Your task to perform on an android device: stop showing notifications on the lock screen Image 0: 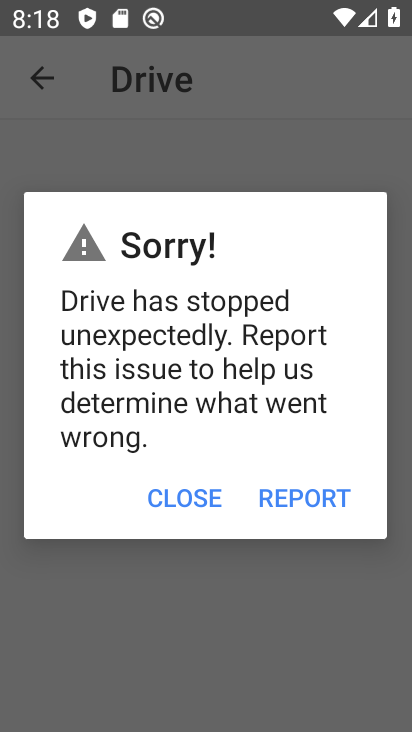
Step 0: press home button
Your task to perform on an android device: stop showing notifications on the lock screen Image 1: 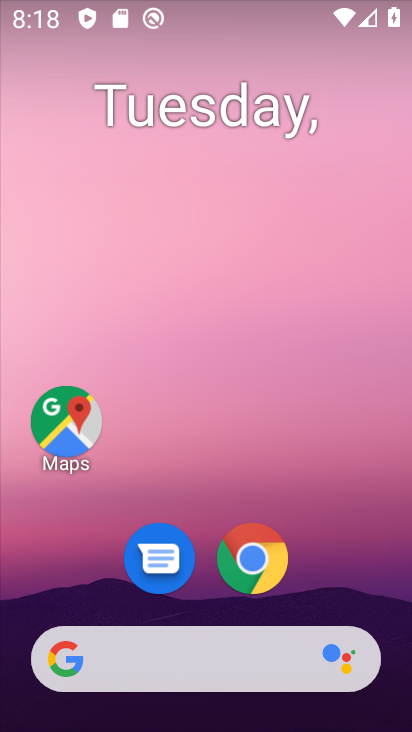
Step 1: drag from (196, 606) to (220, 170)
Your task to perform on an android device: stop showing notifications on the lock screen Image 2: 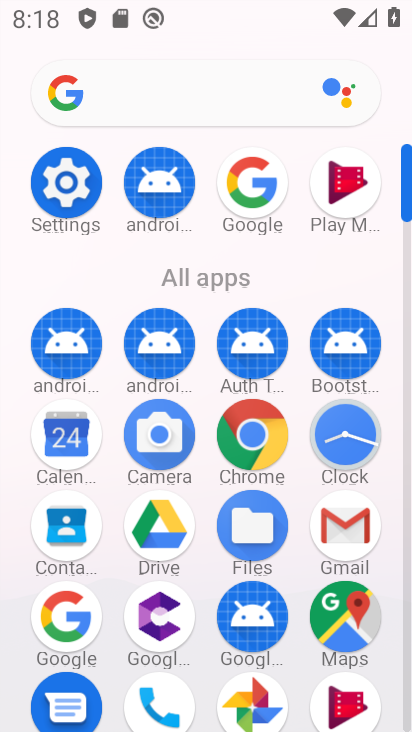
Step 2: click (70, 204)
Your task to perform on an android device: stop showing notifications on the lock screen Image 3: 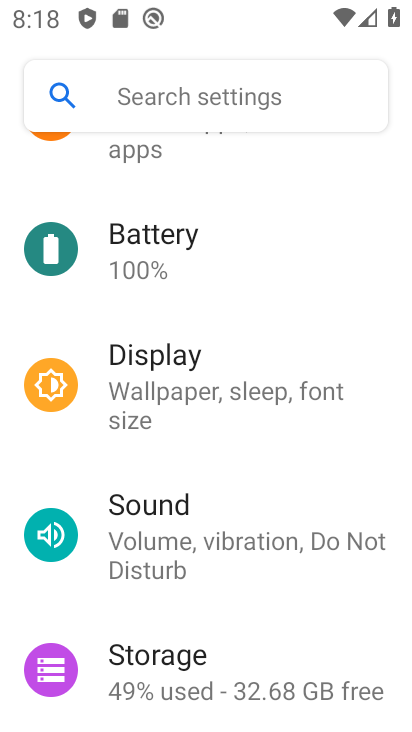
Step 3: drag from (220, 218) to (249, 504)
Your task to perform on an android device: stop showing notifications on the lock screen Image 4: 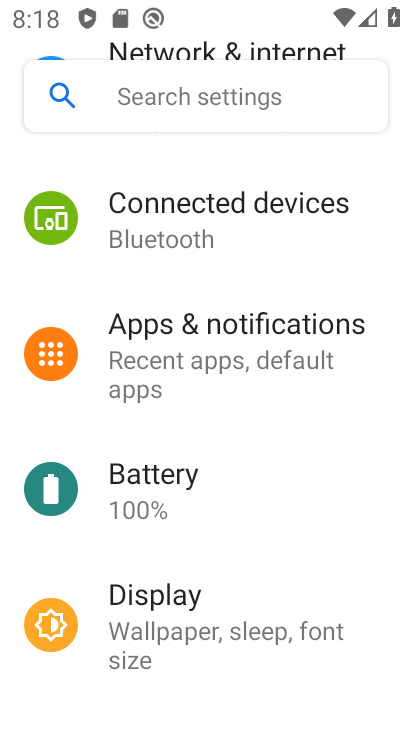
Step 4: click (243, 319)
Your task to perform on an android device: stop showing notifications on the lock screen Image 5: 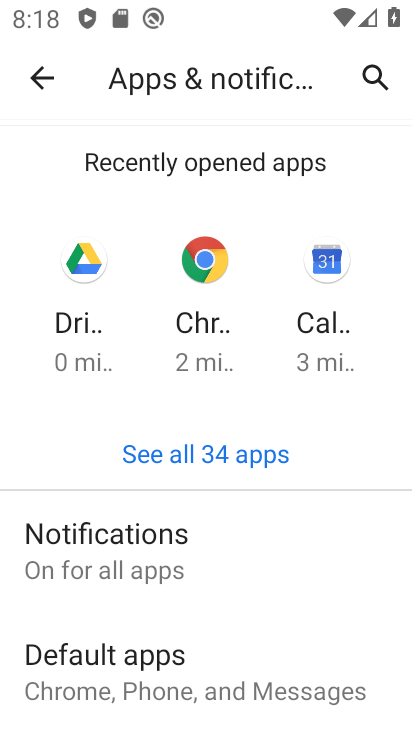
Step 5: click (204, 535)
Your task to perform on an android device: stop showing notifications on the lock screen Image 6: 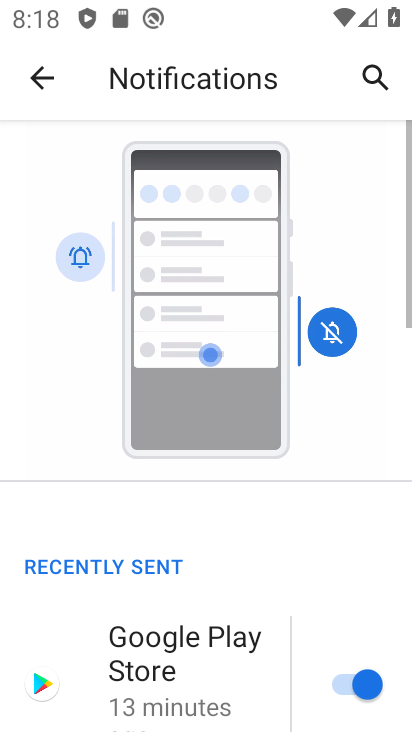
Step 6: drag from (214, 623) to (245, 233)
Your task to perform on an android device: stop showing notifications on the lock screen Image 7: 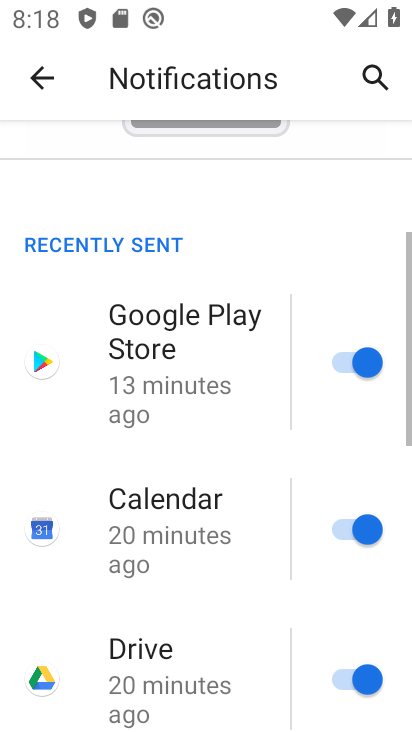
Step 7: drag from (235, 643) to (242, 264)
Your task to perform on an android device: stop showing notifications on the lock screen Image 8: 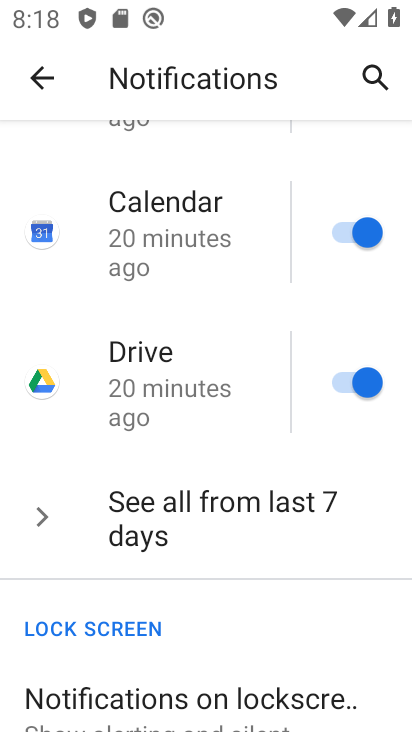
Step 8: drag from (231, 620) to (237, 378)
Your task to perform on an android device: stop showing notifications on the lock screen Image 9: 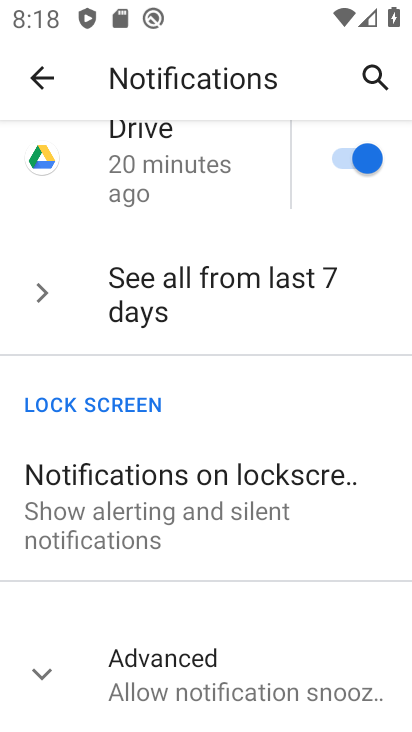
Step 9: click (237, 528)
Your task to perform on an android device: stop showing notifications on the lock screen Image 10: 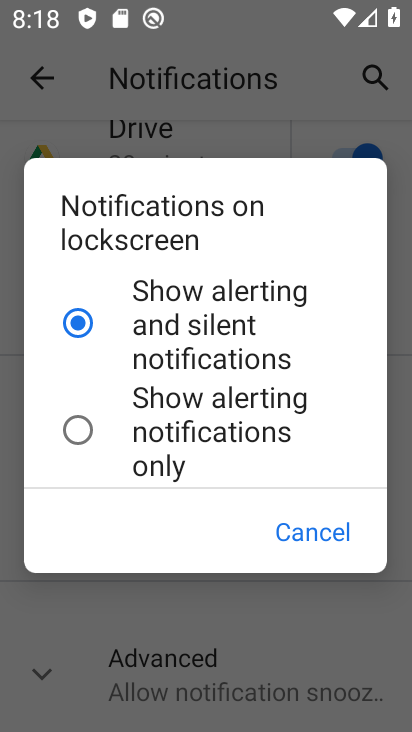
Step 10: click (184, 435)
Your task to perform on an android device: stop showing notifications on the lock screen Image 11: 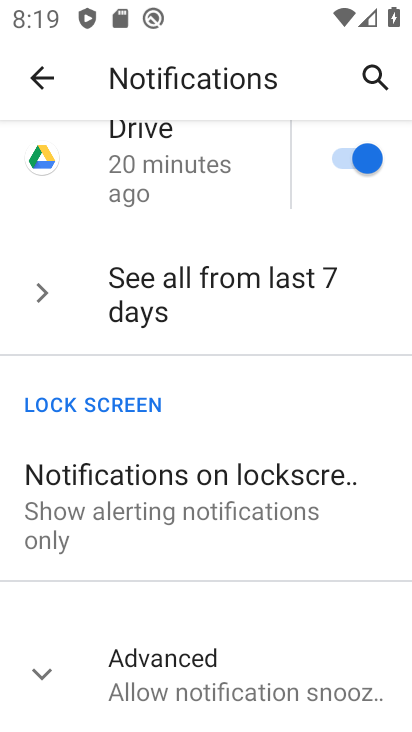
Step 11: click (200, 485)
Your task to perform on an android device: stop showing notifications on the lock screen Image 12: 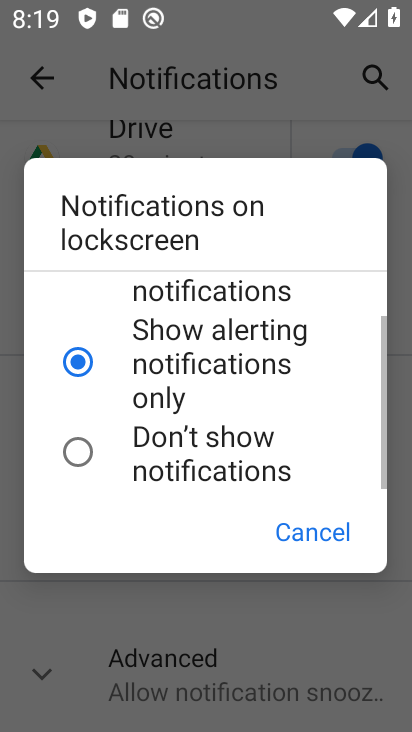
Step 12: click (157, 461)
Your task to perform on an android device: stop showing notifications on the lock screen Image 13: 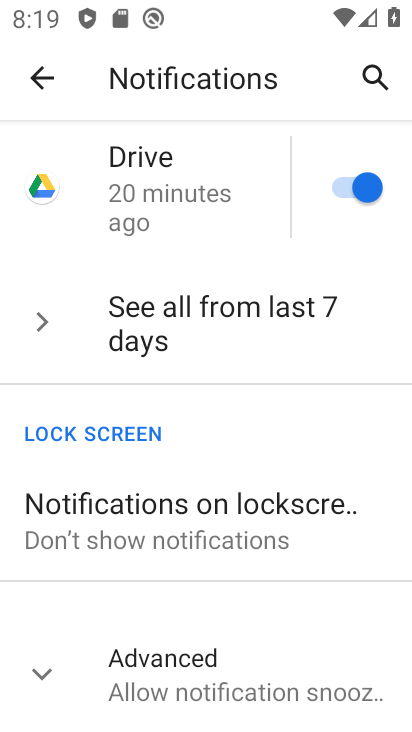
Step 13: task complete